Your task to perform on an android device: Show me recent news Image 0: 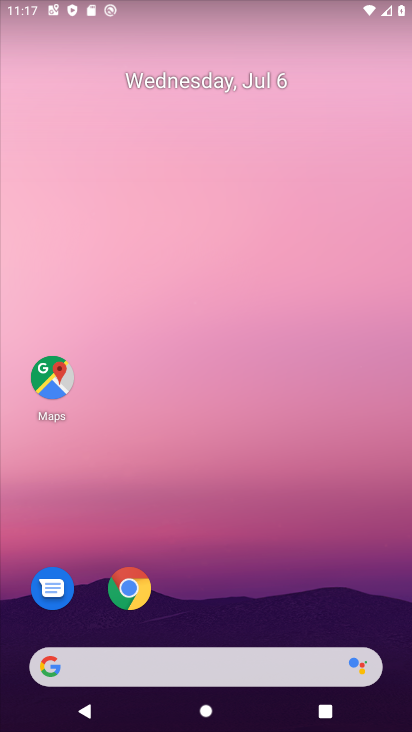
Step 0: drag from (206, 584) to (248, 234)
Your task to perform on an android device: Show me recent news Image 1: 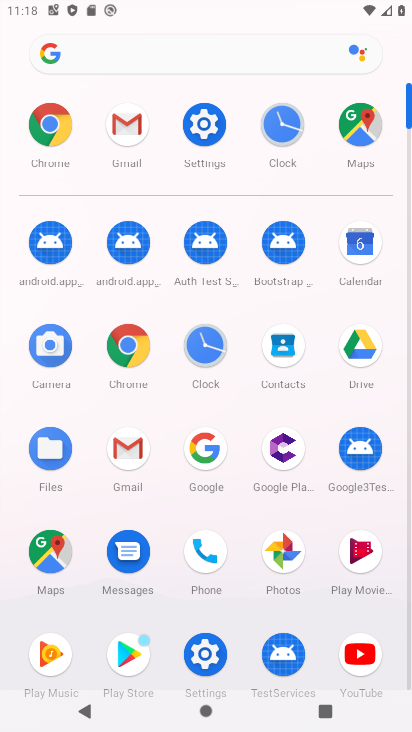
Step 1: click (34, 127)
Your task to perform on an android device: Show me recent news Image 2: 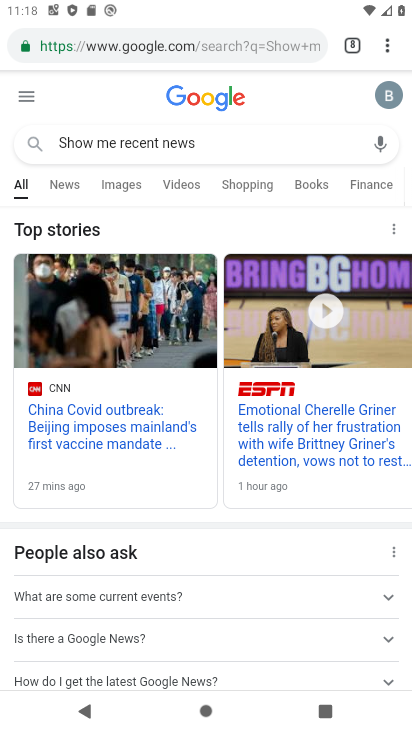
Step 2: task complete